Your task to perform on an android device: Open Google Chrome Image 0: 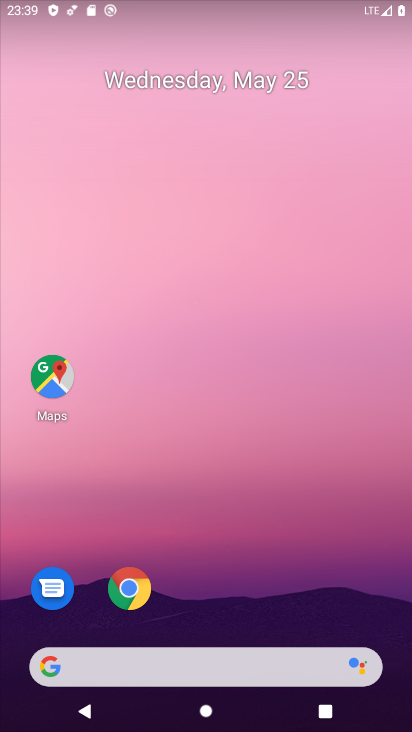
Step 0: click (143, 597)
Your task to perform on an android device: Open Google Chrome Image 1: 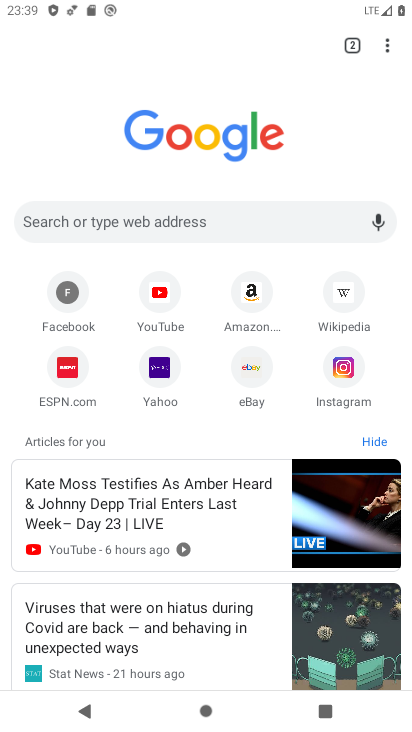
Step 1: task complete